Your task to perform on an android device: Go to settings Image 0: 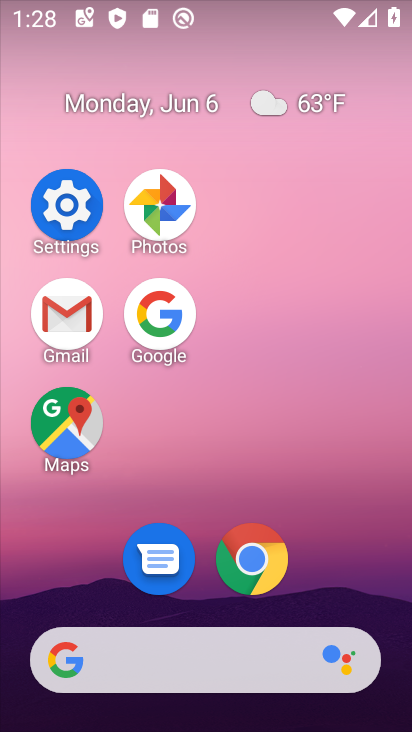
Step 0: click (70, 195)
Your task to perform on an android device: Go to settings Image 1: 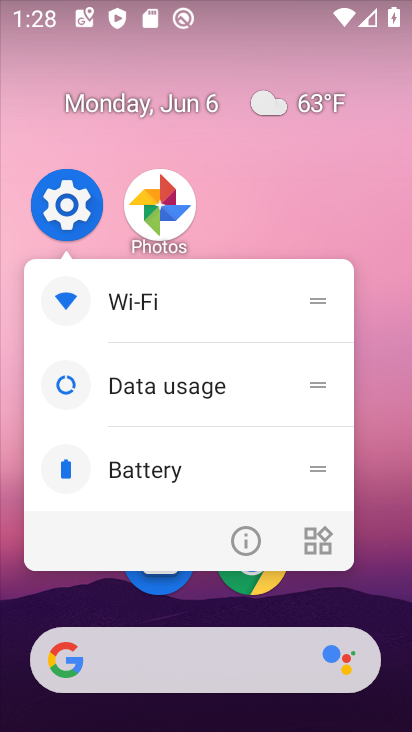
Step 1: click (70, 207)
Your task to perform on an android device: Go to settings Image 2: 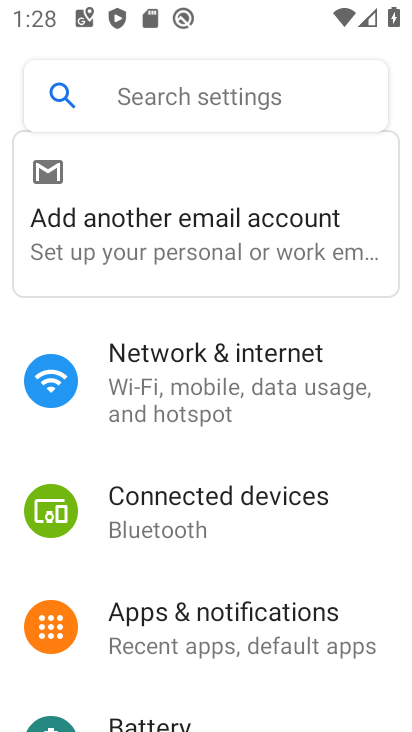
Step 2: task complete